Your task to perform on an android device: Search for sushi restaurants on Maps Image 0: 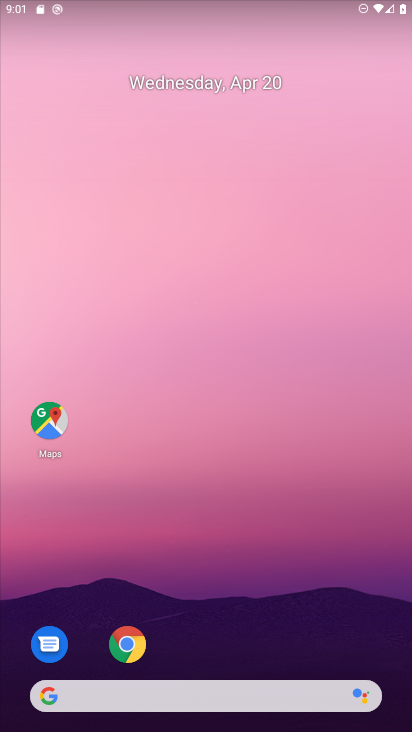
Step 0: drag from (347, 612) to (305, 60)
Your task to perform on an android device: Search for sushi restaurants on Maps Image 1: 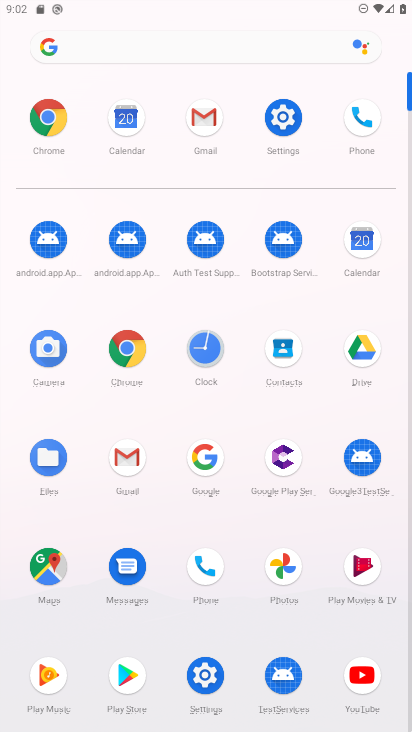
Step 1: click (60, 563)
Your task to perform on an android device: Search for sushi restaurants on Maps Image 2: 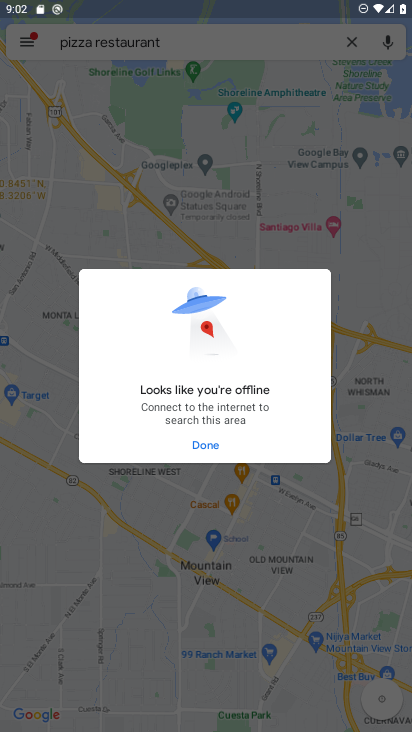
Step 2: press back button
Your task to perform on an android device: Search for sushi restaurants on Maps Image 3: 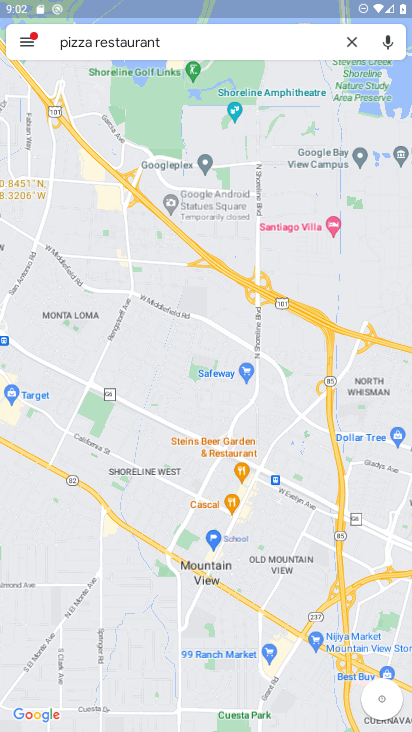
Step 3: click (347, 44)
Your task to perform on an android device: Search for sushi restaurants on Maps Image 4: 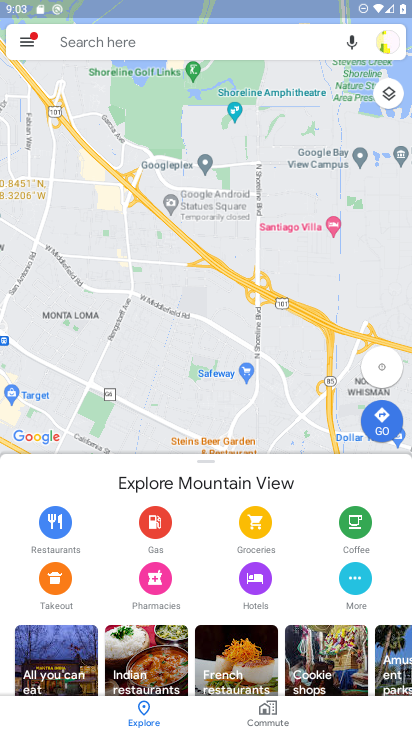
Step 4: click (205, 43)
Your task to perform on an android device: Search for sushi restaurants on Maps Image 5: 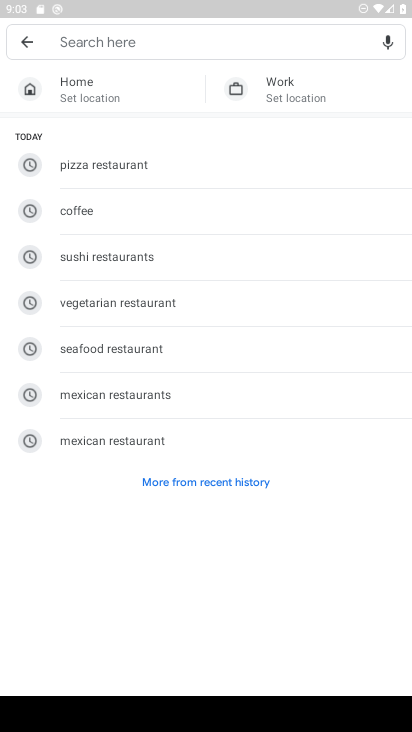
Step 5: click (105, 246)
Your task to perform on an android device: Search for sushi restaurants on Maps Image 6: 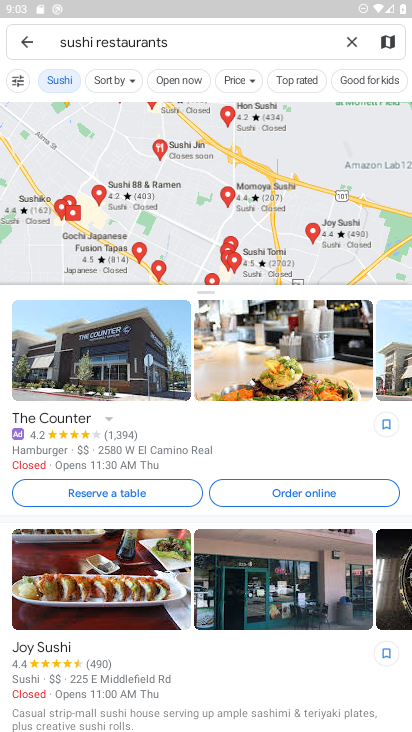
Step 6: task complete